Your task to perform on an android device: Open calendar and show me the second week of next month Image 0: 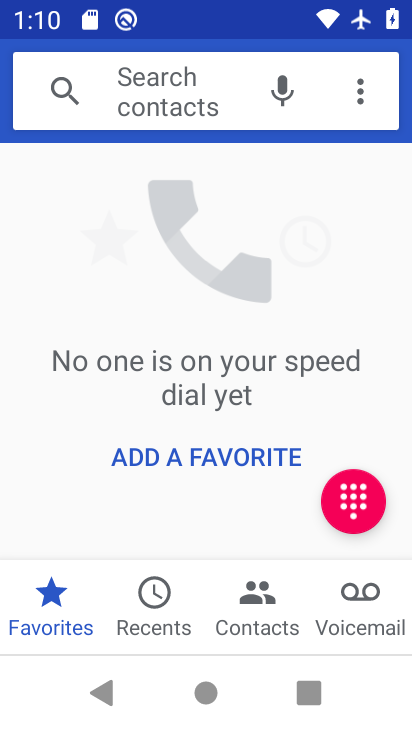
Step 0: press home button
Your task to perform on an android device: Open calendar and show me the second week of next month Image 1: 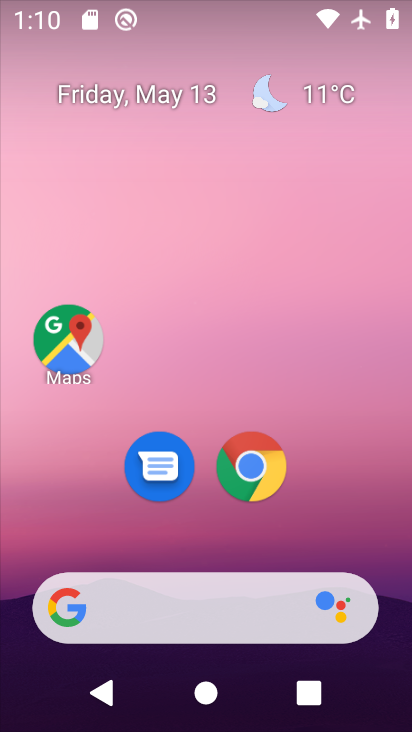
Step 1: drag from (161, 544) to (306, 79)
Your task to perform on an android device: Open calendar and show me the second week of next month Image 2: 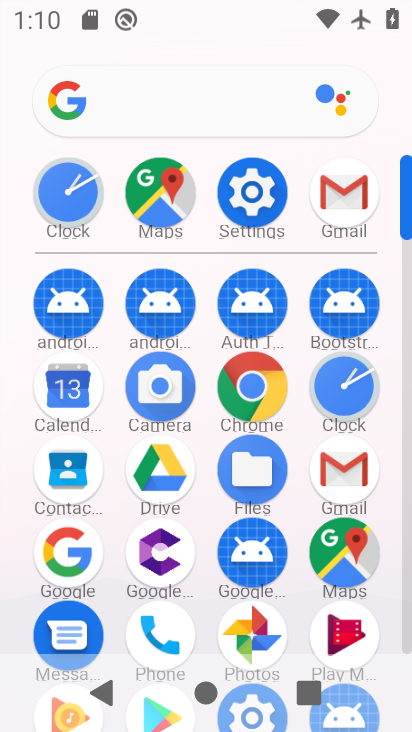
Step 2: click (72, 380)
Your task to perform on an android device: Open calendar and show me the second week of next month Image 3: 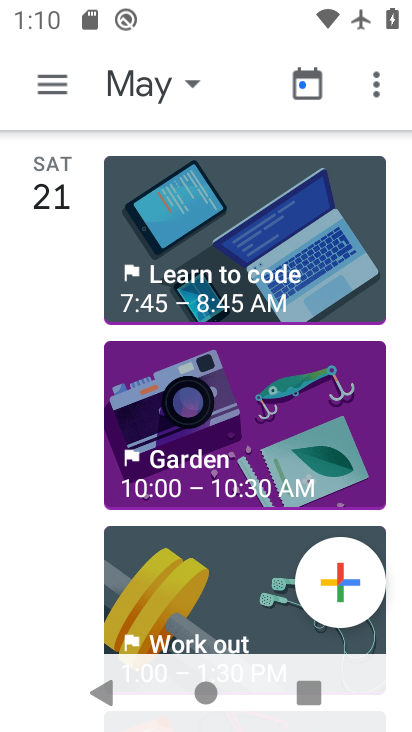
Step 3: click (153, 88)
Your task to perform on an android device: Open calendar and show me the second week of next month Image 4: 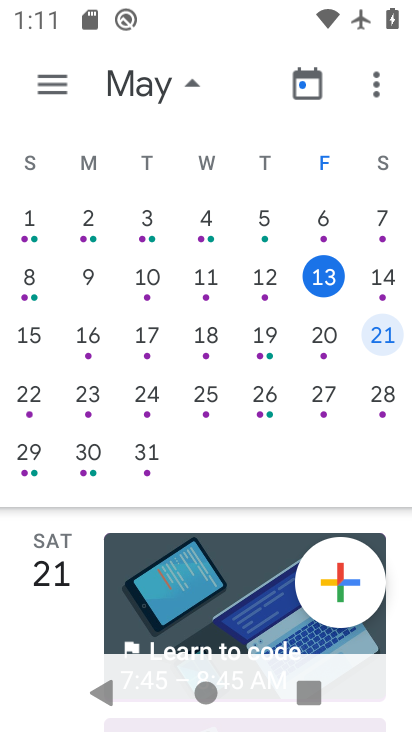
Step 4: drag from (380, 360) to (38, 358)
Your task to perform on an android device: Open calendar and show me the second week of next month Image 5: 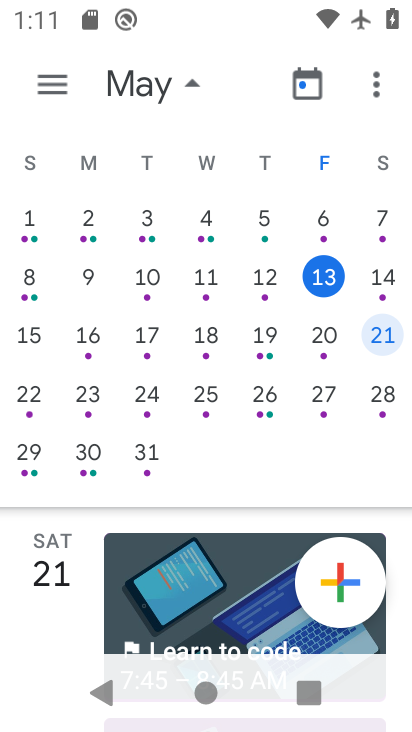
Step 5: drag from (351, 326) to (26, 309)
Your task to perform on an android device: Open calendar and show me the second week of next month Image 6: 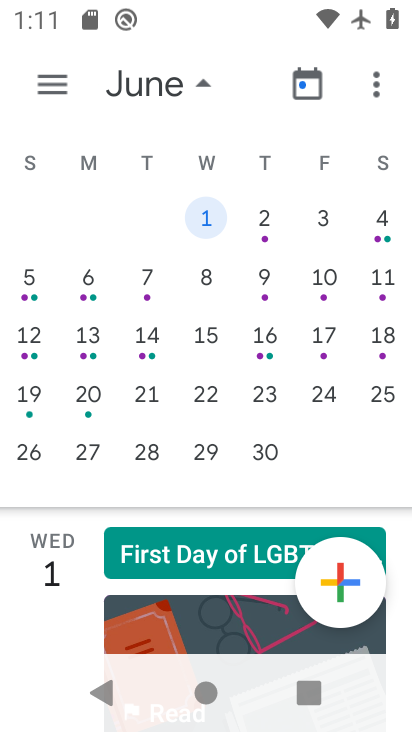
Step 6: click (49, 291)
Your task to perform on an android device: Open calendar and show me the second week of next month Image 7: 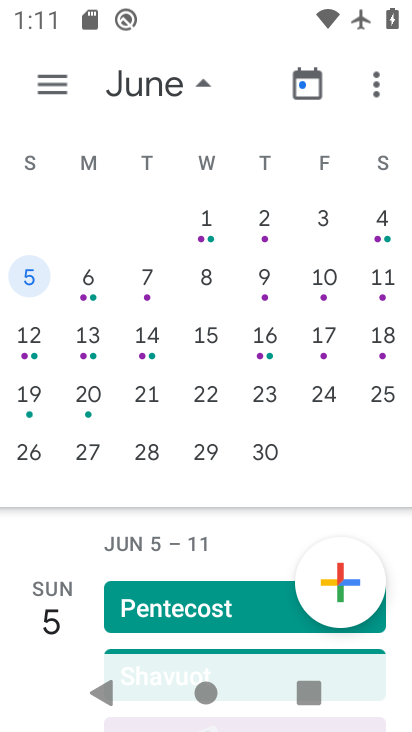
Step 7: task complete